Your task to perform on an android device: toggle data saver in the chrome app Image 0: 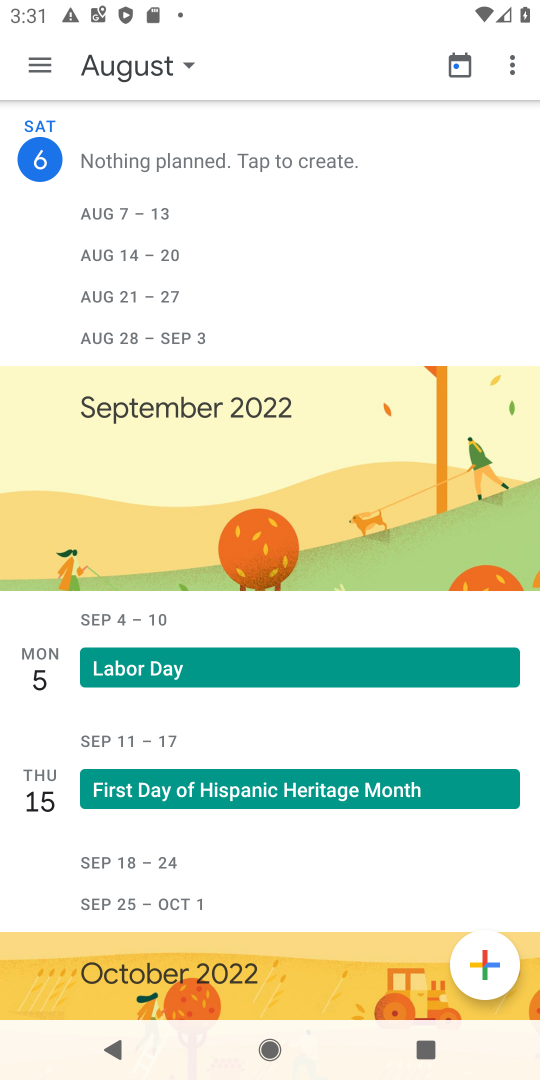
Step 0: press back button
Your task to perform on an android device: toggle data saver in the chrome app Image 1: 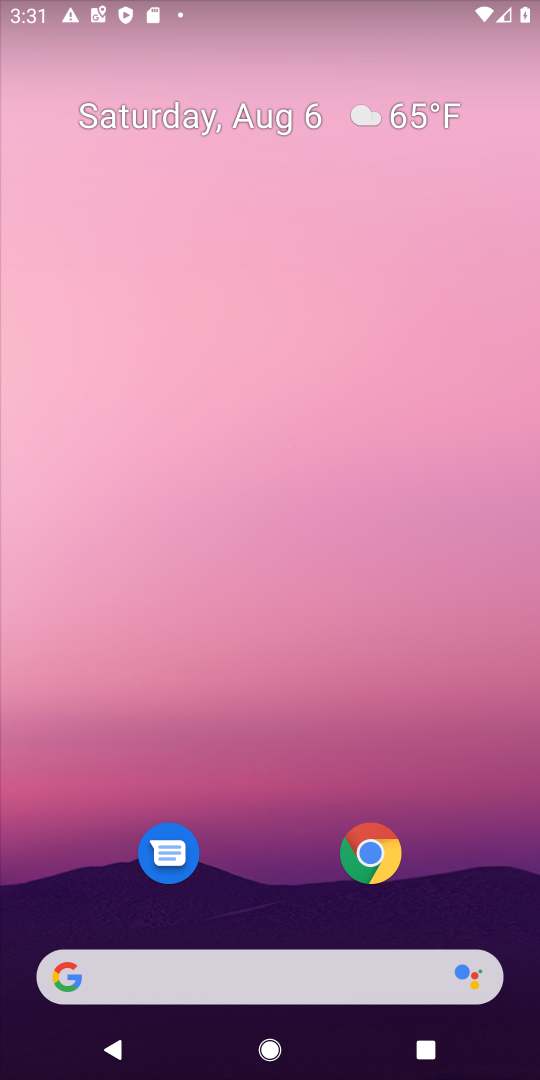
Step 1: click (346, 860)
Your task to perform on an android device: toggle data saver in the chrome app Image 2: 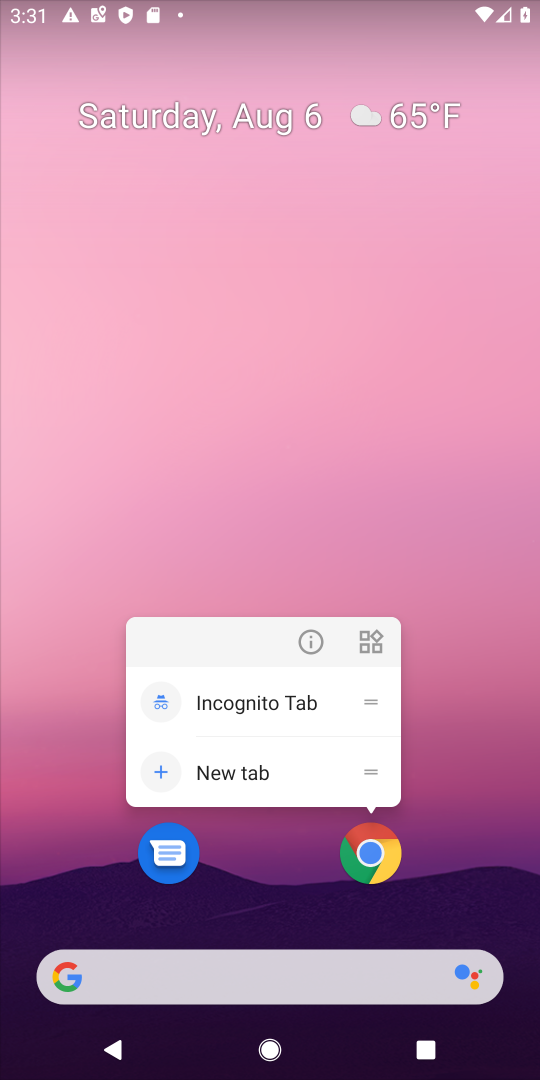
Step 2: click (362, 849)
Your task to perform on an android device: toggle data saver in the chrome app Image 3: 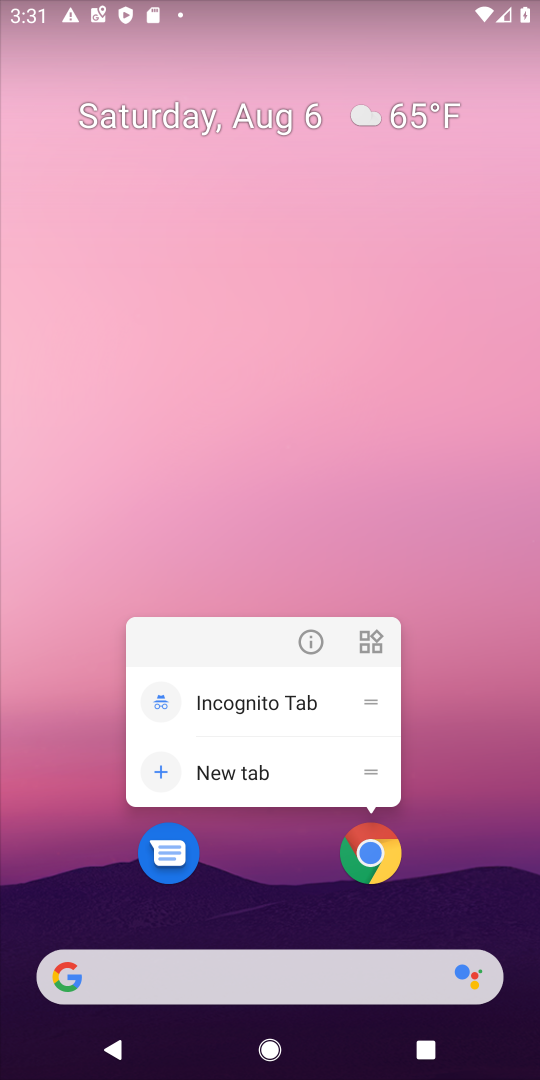
Step 3: click (384, 857)
Your task to perform on an android device: toggle data saver in the chrome app Image 4: 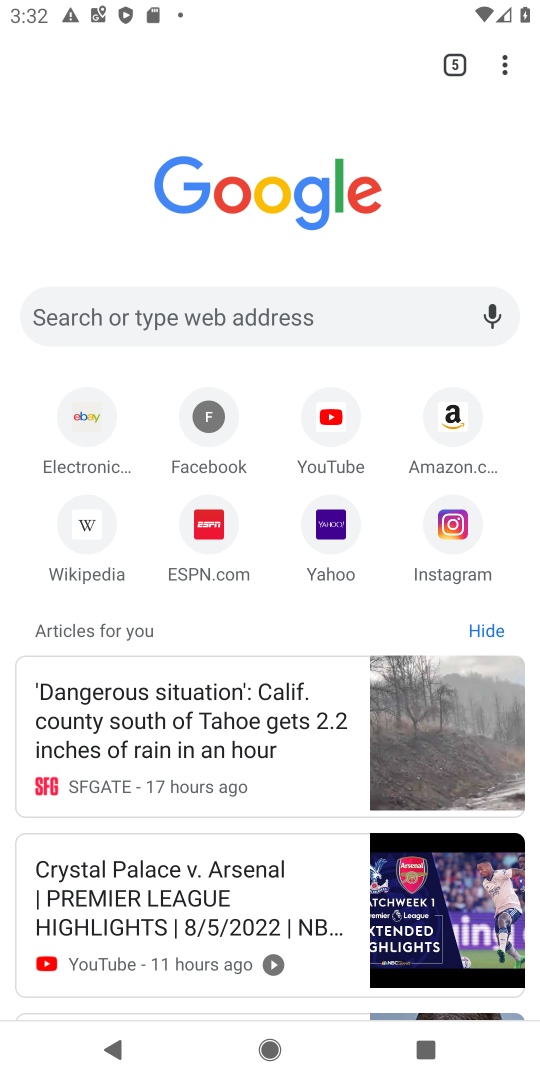
Step 4: drag from (495, 64) to (297, 542)
Your task to perform on an android device: toggle data saver in the chrome app Image 5: 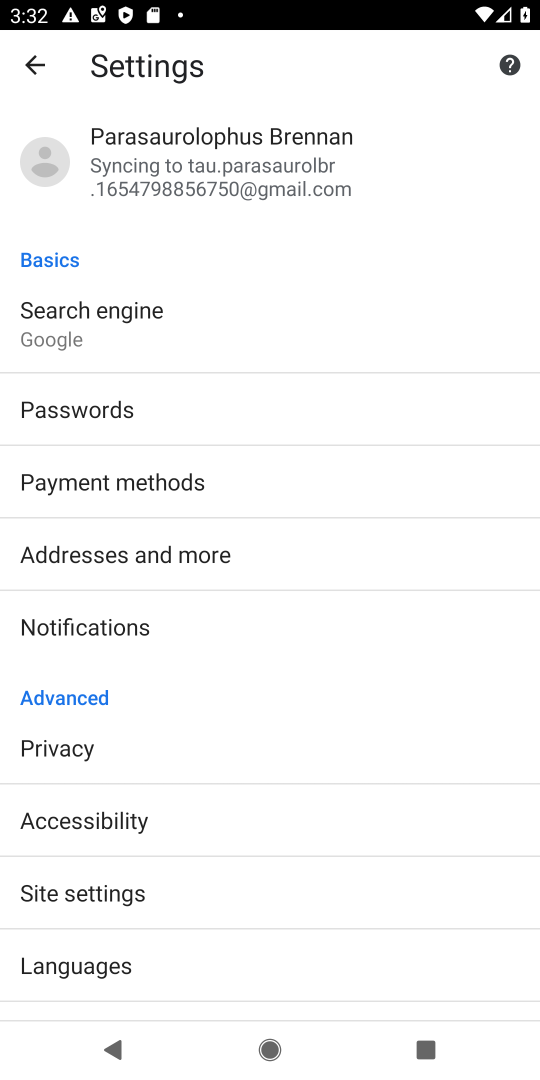
Step 5: drag from (171, 881) to (350, 153)
Your task to perform on an android device: toggle data saver in the chrome app Image 6: 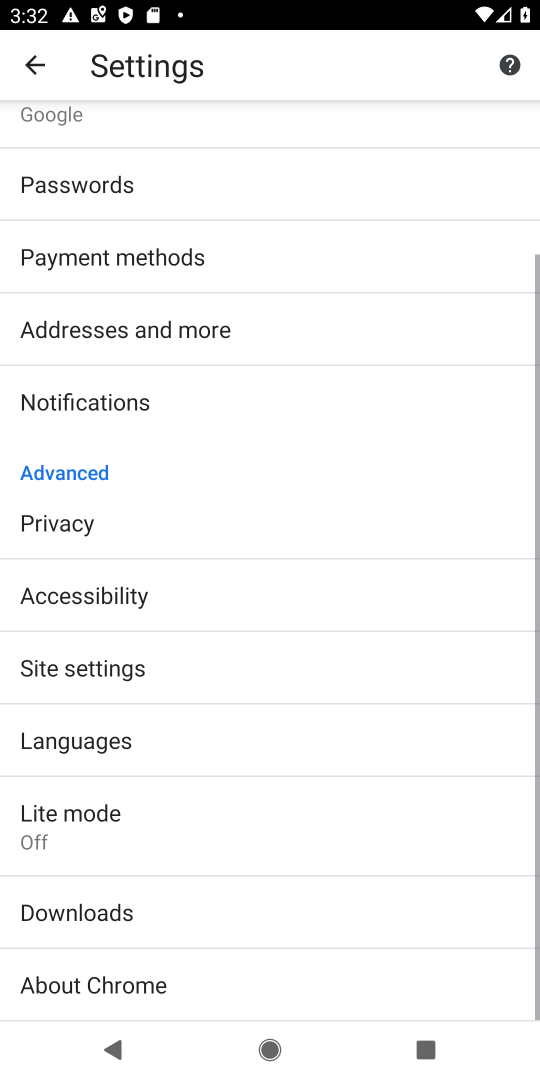
Step 6: click (260, 823)
Your task to perform on an android device: toggle data saver in the chrome app Image 7: 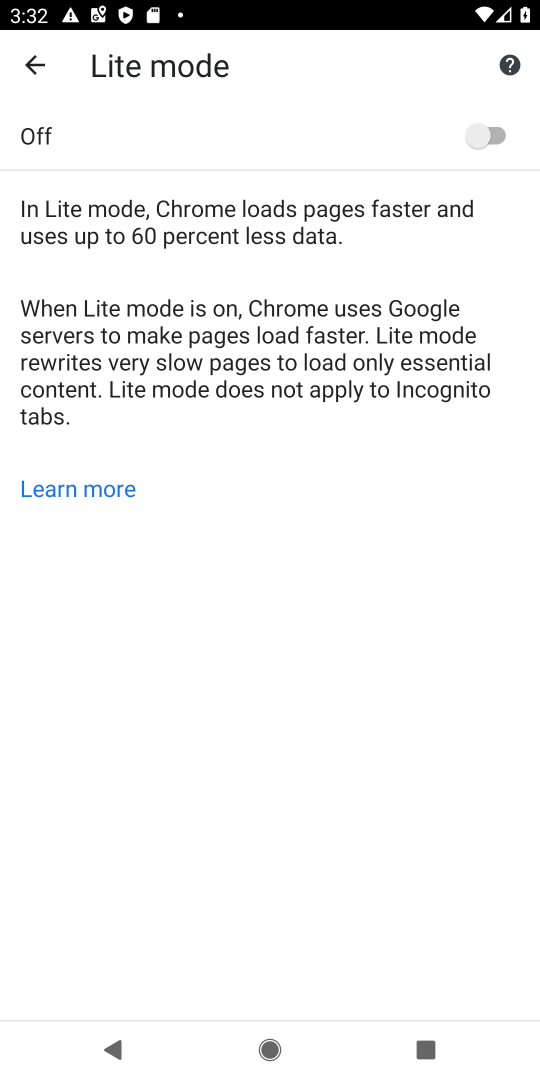
Step 7: click (482, 116)
Your task to perform on an android device: toggle data saver in the chrome app Image 8: 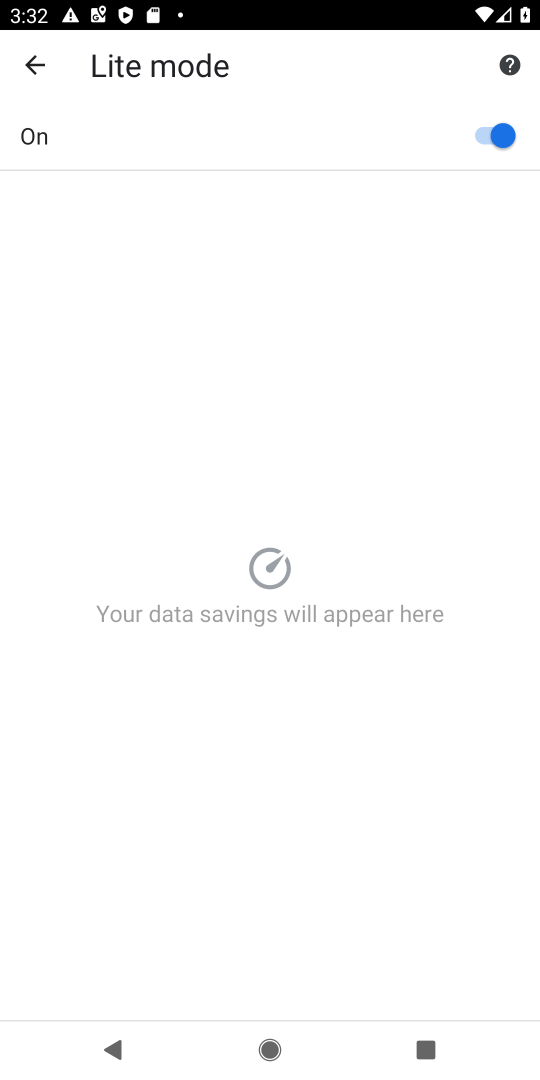
Step 8: task complete